Your task to perform on an android device: Open Maps and search for coffee Image 0: 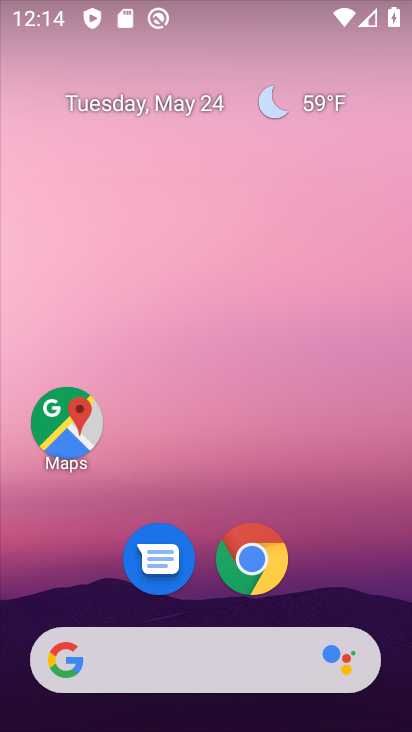
Step 0: click (63, 432)
Your task to perform on an android device: Open Maps and search for coffee Image 1: 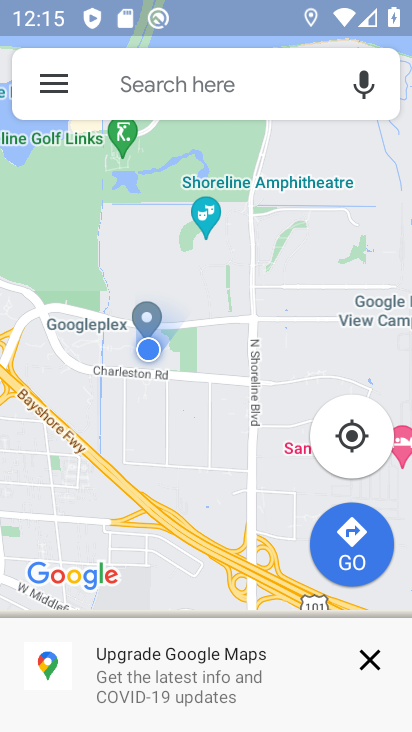
Step 1: click (169, 89)
Your task to perform on an android device: Open Maps and search for coffee Image 2: 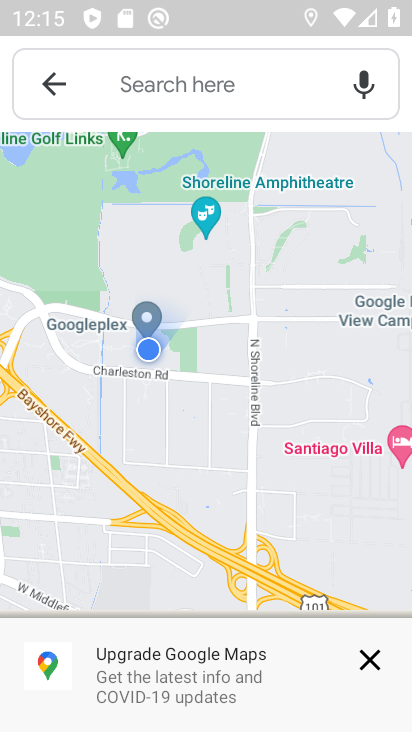
Step 2: click (169, 89)
Your task to perform on an android device: Open Maps and search for coffee Image 3: 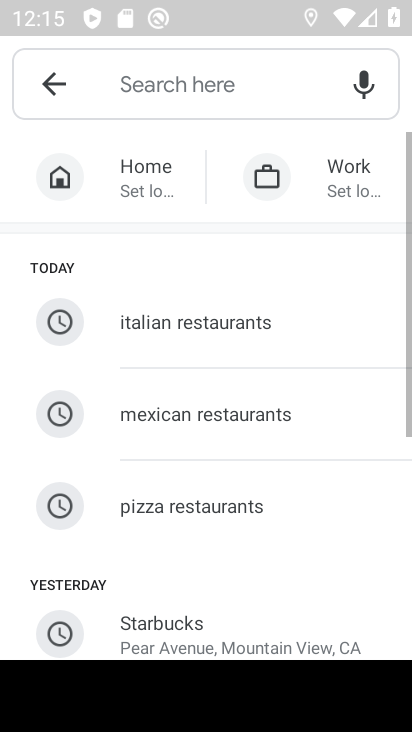
Step 3: click (155, 99)
Your task to perform on an android device: Open Maps and search for coffee Image 4: 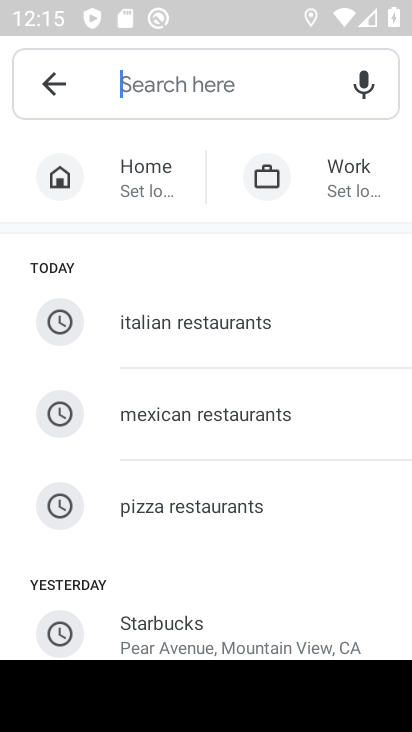
Step 4: type "coffee"
Your task to perform on an android device: Open Maps and search for coffee Image 5: 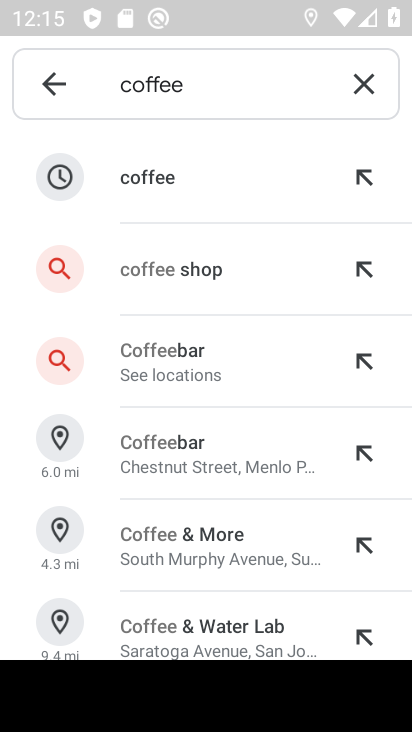
Step 5: click (195, 274)
Your task to perform on an android device: Open Maps and search for coffee Image 6: 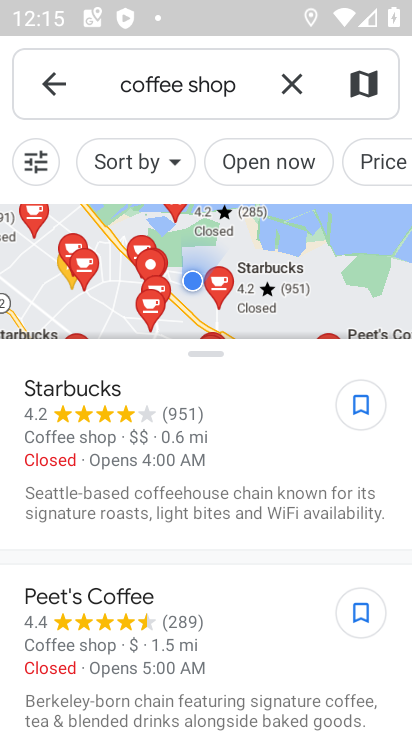
Step 6: task complete